Your task to perform on an android device: Go to ESPN.com Image 0: 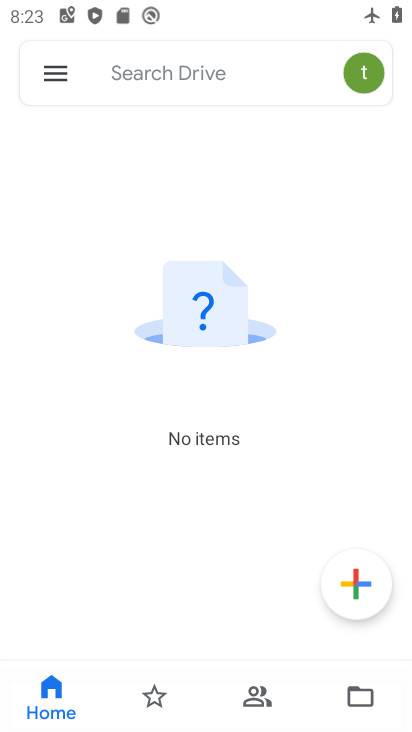
Step 0: press home button
Your task to perform on an android device: Go to ESPN.com Image 1: 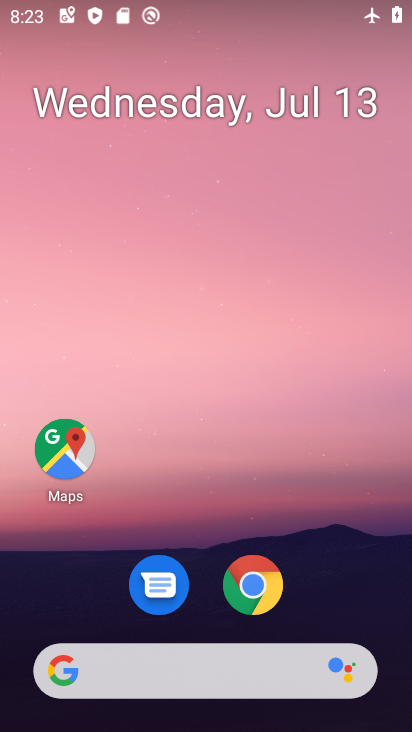
Step 1: click (228, 682)
Your task to perform on an android device: Go to ESPN.com Image 2: 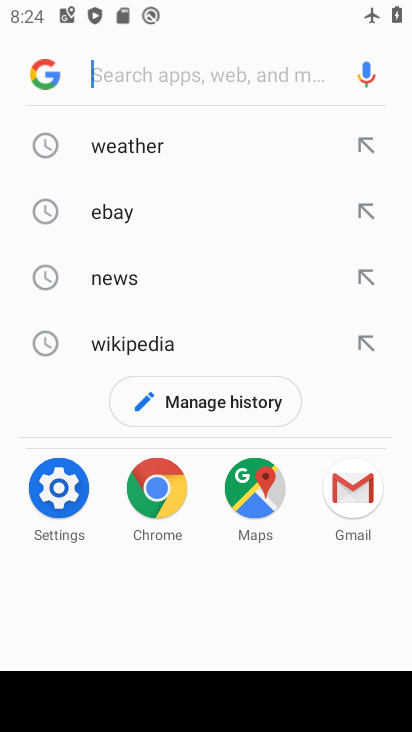
Step 2: type "espn.com"
Your task to perform on an android device: Go to ESPN.com Image 3: 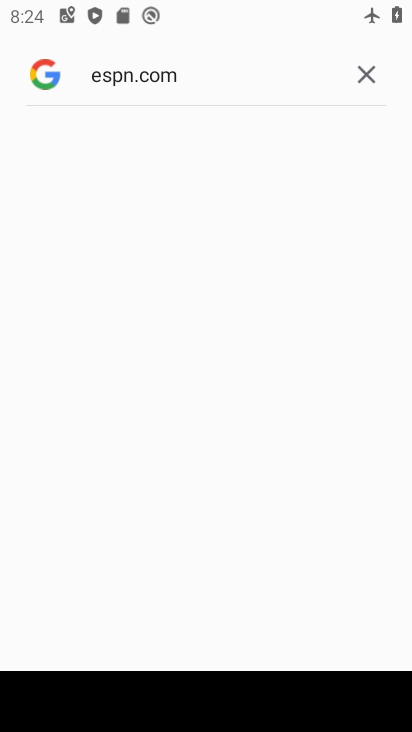
Step 3: task complete